Your task to perform on an android device: move a message to another label in the gmail app Image 0: 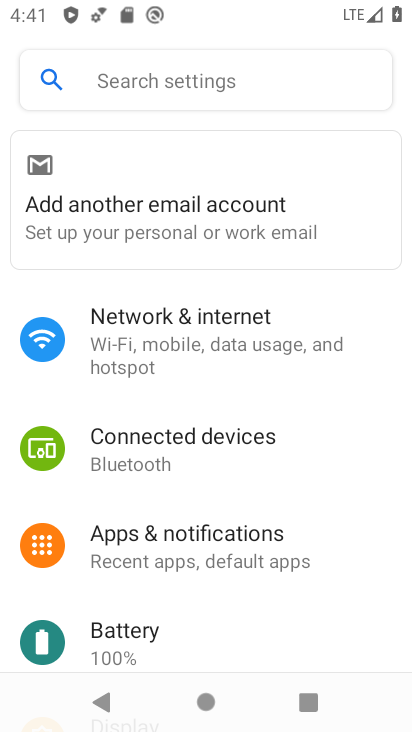
Step 0: press home button
Your task to perform on an android device: move a message to another label in the gmail app Image 1: 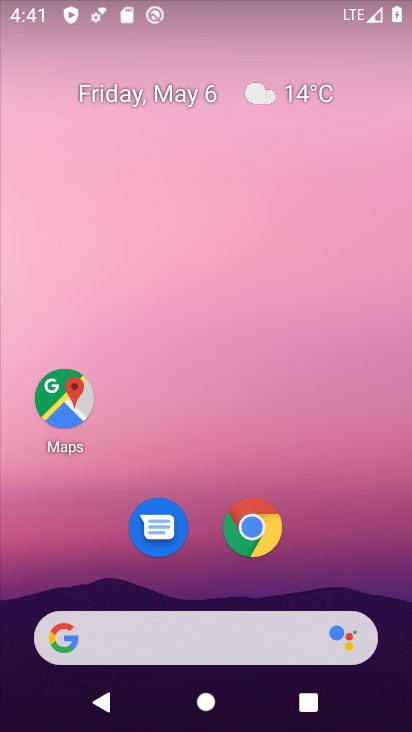
Step 1: drag from (178, 728) to (178, 188)
Your task to perform on an android device: move a message to another label in the gmail app Image 2: 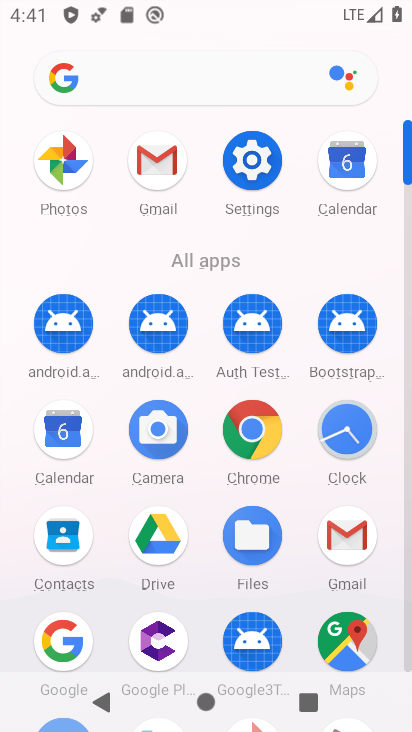
Step 2: click (357, 532)
Your task to perform on an android device: move a message to another label in the gmail app Image 3: 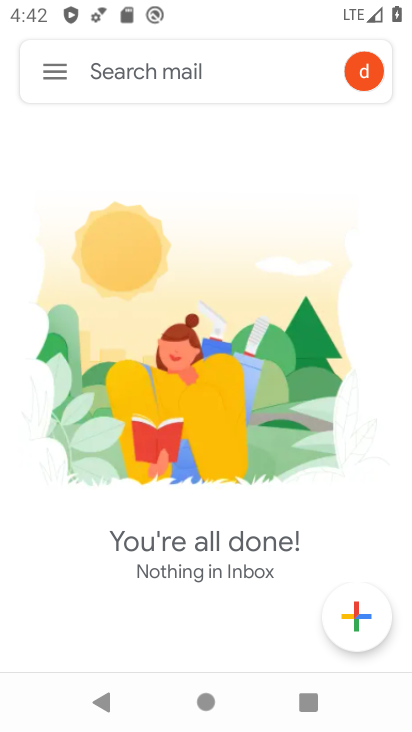
Step 3: task complete